Your task to perform on an android device: Set the phone to "Do not disturb". Image 0: 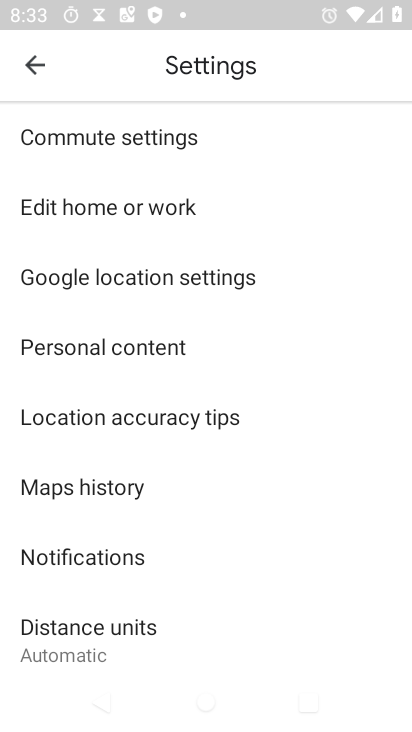
Step 0: press home button
Your task to perform on an android device: Set the phone to "Do not disturb". Image 1: 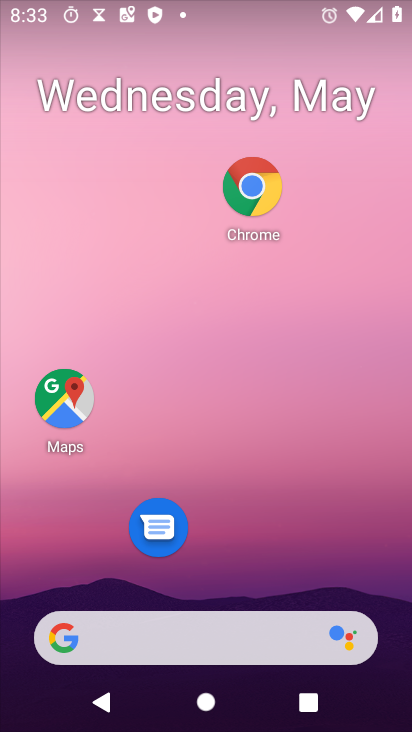
Step 1: drag from (223, 110) to (228, 491)
Your task to perform on an android device: Set the phone to "Do not disturb". Image 2: 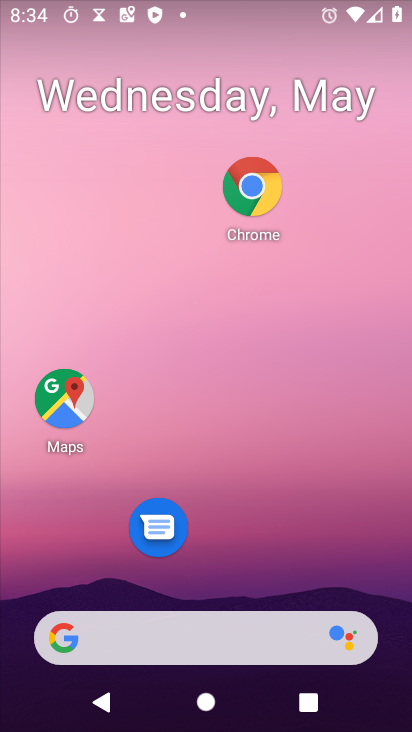
Step 2: drag from (243, 25) to (268, 548)
Your task to perform on an android device: Set the phone to "Do not disturb". Image 3: 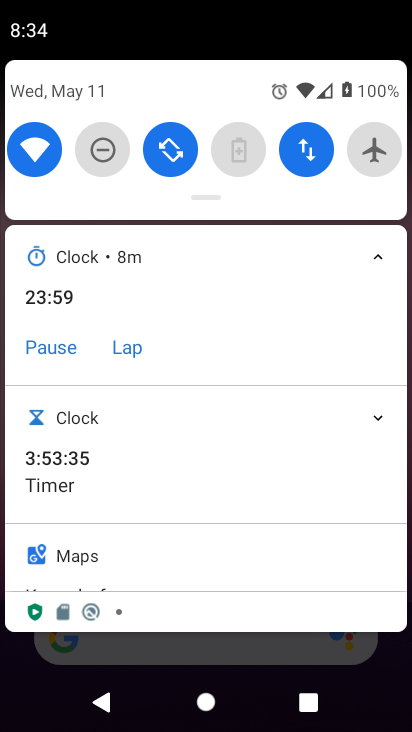
Step 3: drag from (136, 181) to (155, 582)
Your task to perform on an android device: Set the phone to "Do not disturb". Image 4: 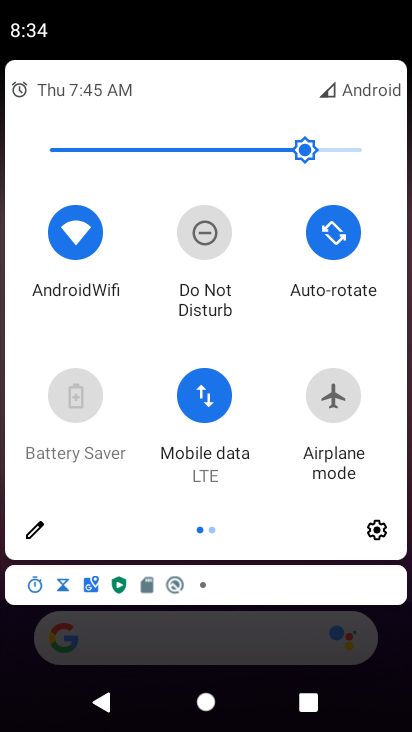
Step 4: click (207, 226)
Your task to perform on an android device: Set the phone to "Do not disturb". Image 5: 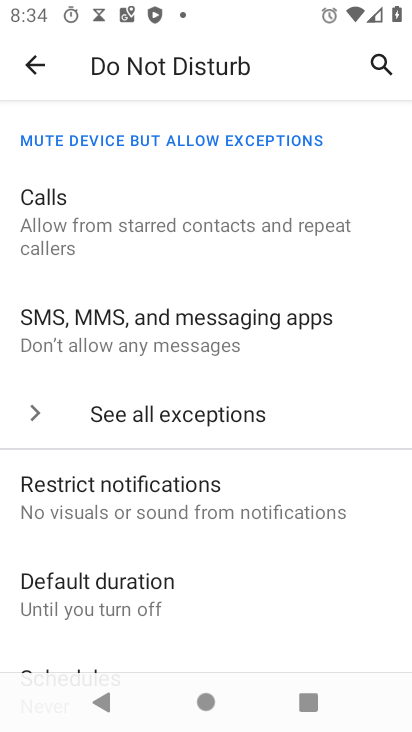
Step 5: click (30, 66)
Your task to perform on an android device: Set the phone to "Do not disturb". Image 6: 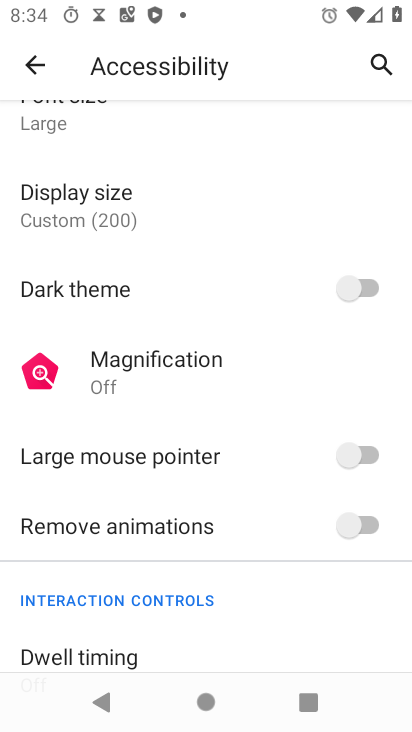
Step 6: press home button
Your task to perform on an android device: Set the phone to "Do not disturb". Image 7: 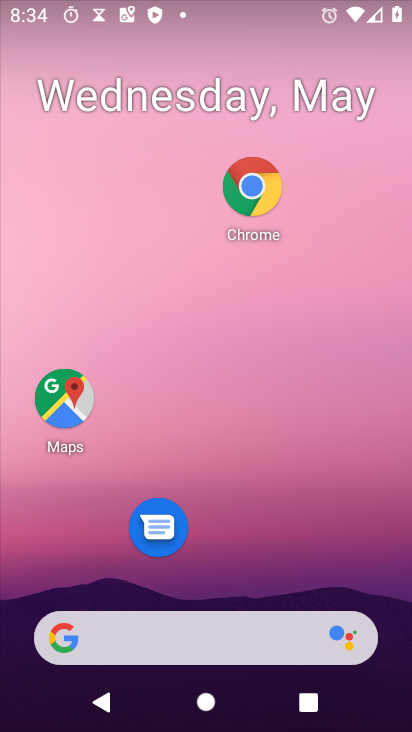
Step 7: drag from (264, 5) to (258, 594)
Your task to perform on an android device: Set the phone to "Do not disturb". Image 8: 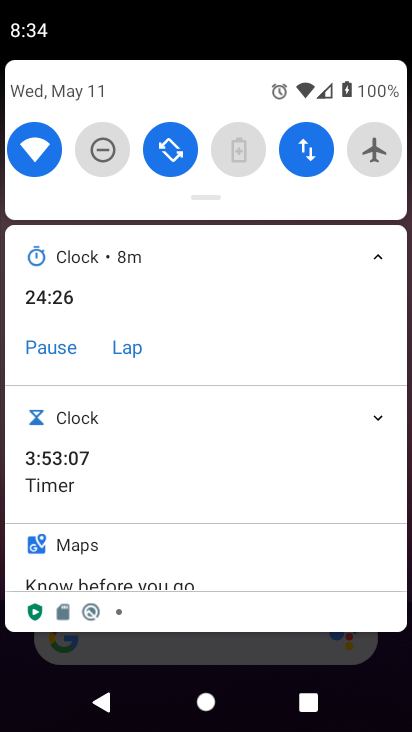
Step 8: click (98, 149)
Your task to perform on an android device: Set the phone to "Do not disturb". Image 9: 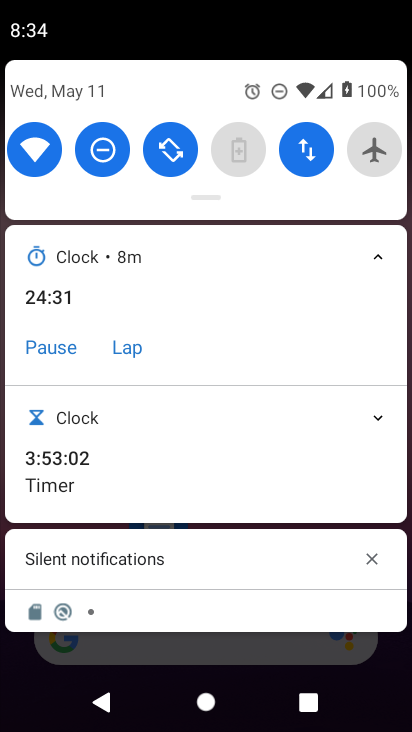
Step 9: task complete